Your task to perform on an android device: Go to wifi settings Image 0: 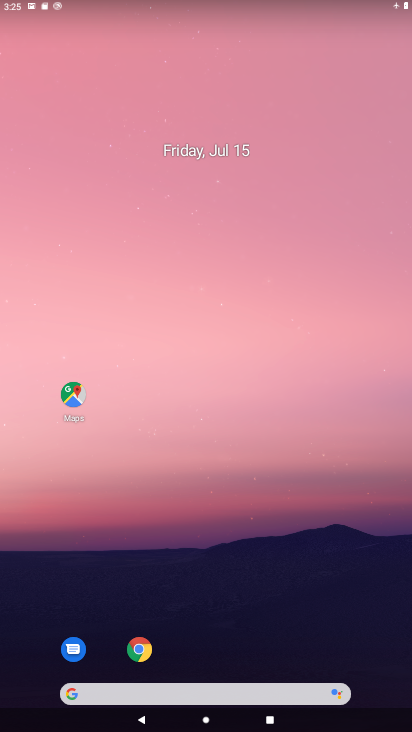
Step 0: drag from (368, 586) to (382, 53)
Your task to perform on an android device: Go to wifi settings Image 1: 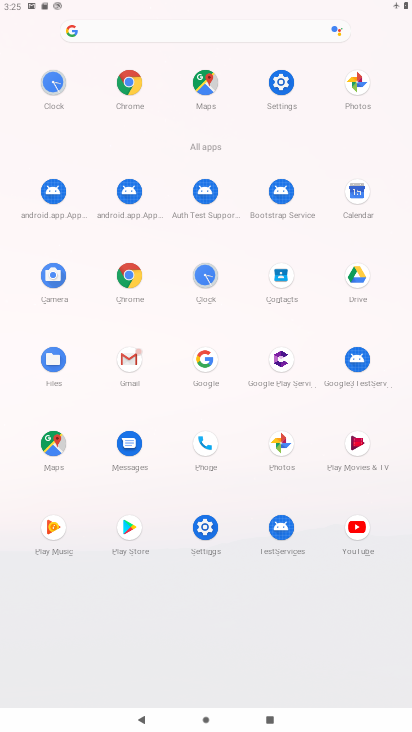
Step 1: click (205, 526)
Your task to perform on an android device: Go to wifi settings Image 2: 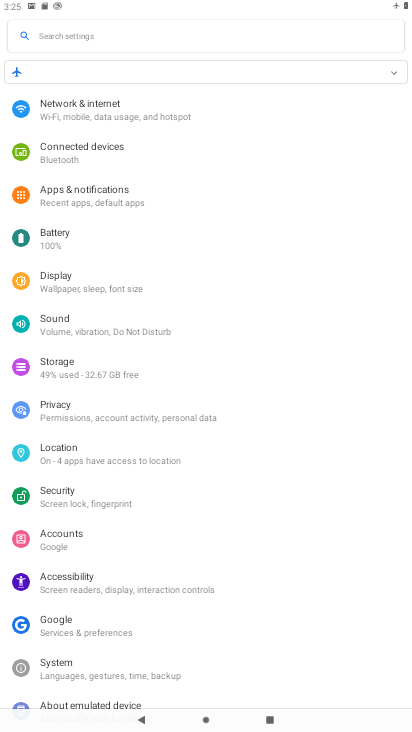
Step 2: click (60, 109)
Your task to perform on an android device: Go to wifi settings Image 3: 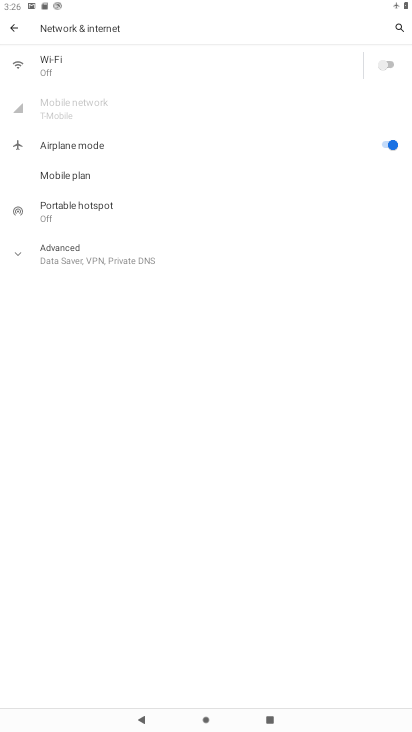
Step 3: click (46, 55)
Your task to perform on an android device: Go to wifi settings Image 4: 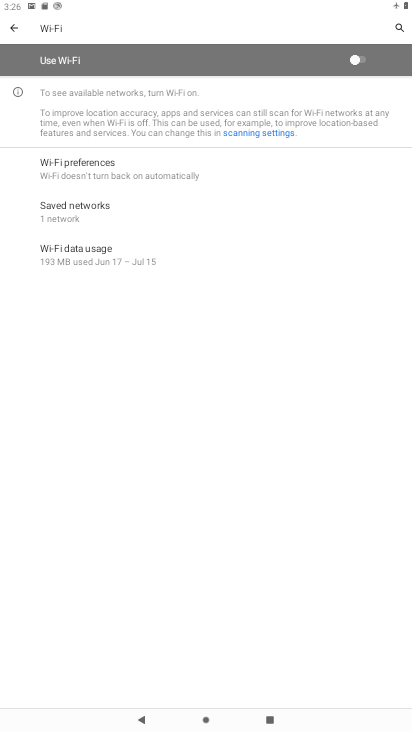
Step 4: task complete